Your task to perform on an android device: turn off priority inbox in the gmail app Image 0: 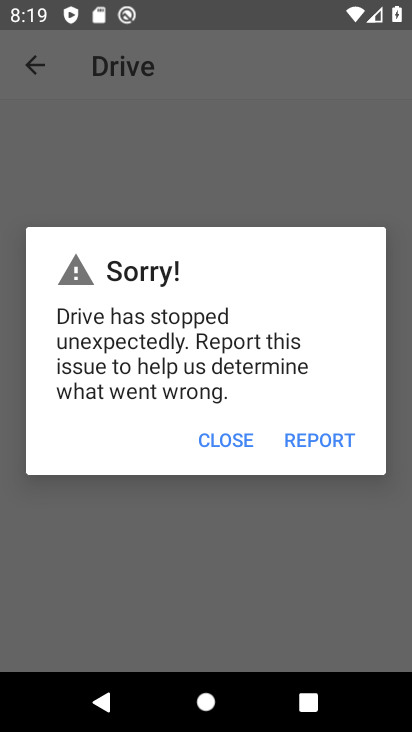
Step 0: press home button
Your task to perform on an android device: turn off priority inbox in the gmail app Image 1: 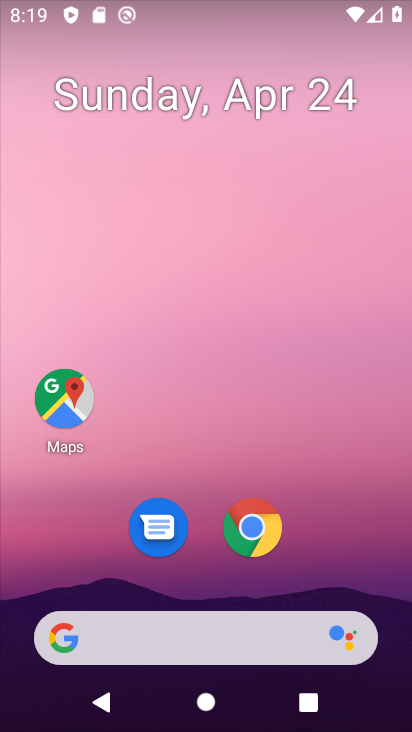
Step 1: drag from (312, 540) to (317, 148)
Your task to perform on an android device: turn off priority inbox in the gmail app Image 2: 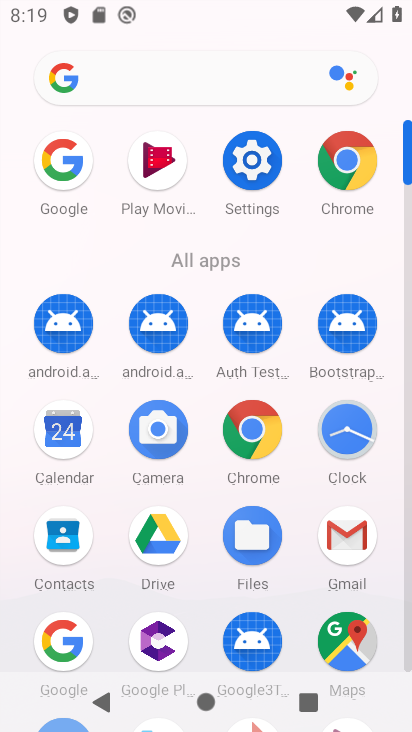
Step 2: click (345, 539)
Your task to perform on an android device: turn off priority inbox in the gmail app Image 3: 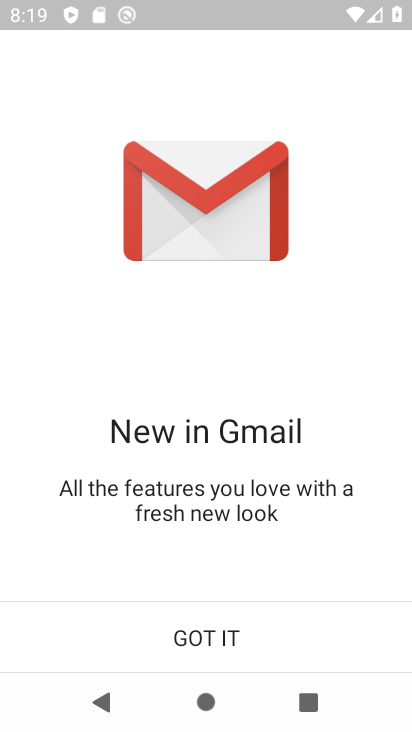
Step 3: click (239, 635)
Your task to perform on an android device: turn off priority inbox in the gmail app Image 4: 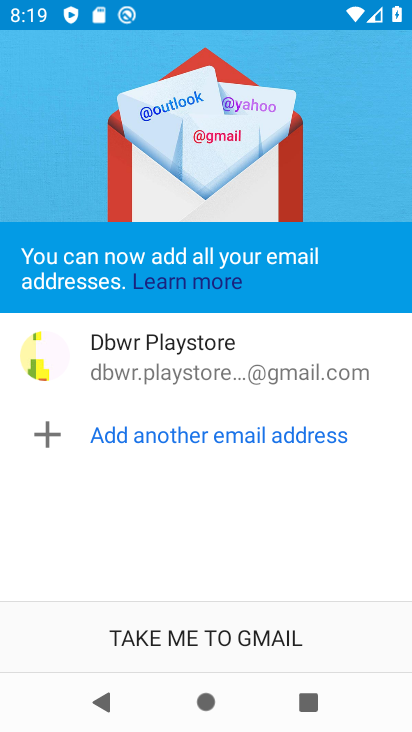
Step 4: click (239, 635)
Your task to perform on an android device: turn off priority inbox in the gmail app Image 5: 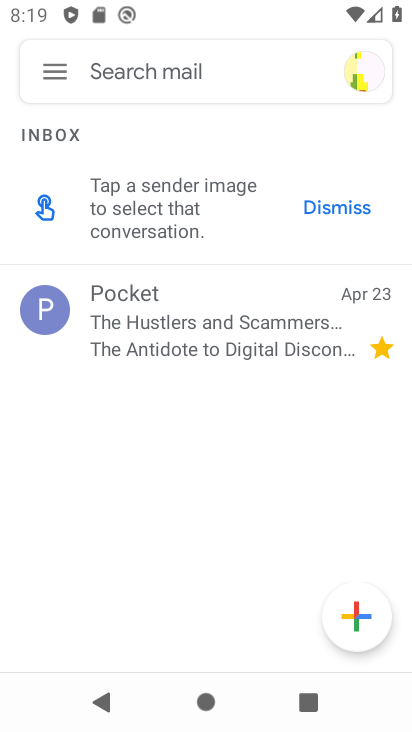
Step 5: click (62, 71)
Your task to perform on an android device: turn off priority inbox in the gmail app Image 6: 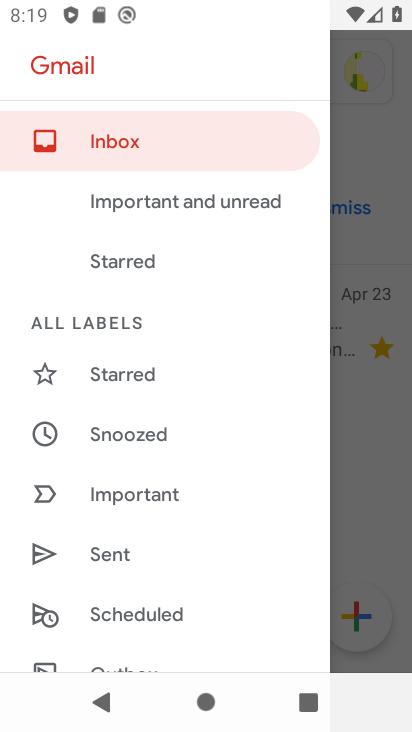
Step 6: drag from (184, 563) to (201, 180)
Your task to perform on an android device: turn off priority inbox in the gmail app Image 7: 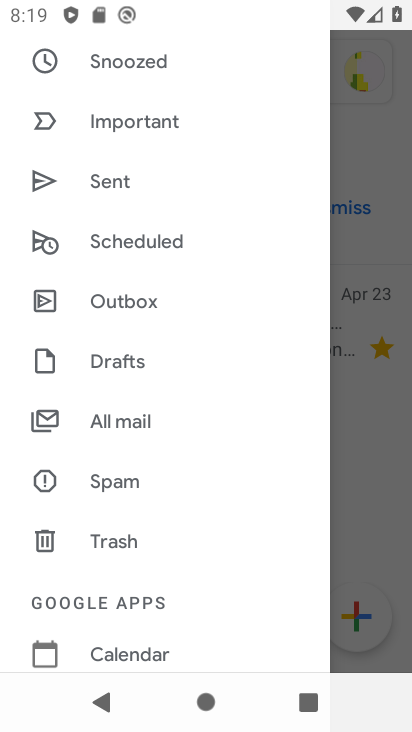
Step 7: drag from (176, 518) to (172, 301)
Your task to perform on an android device: turn off priority inbox in the gmail app Image 8: 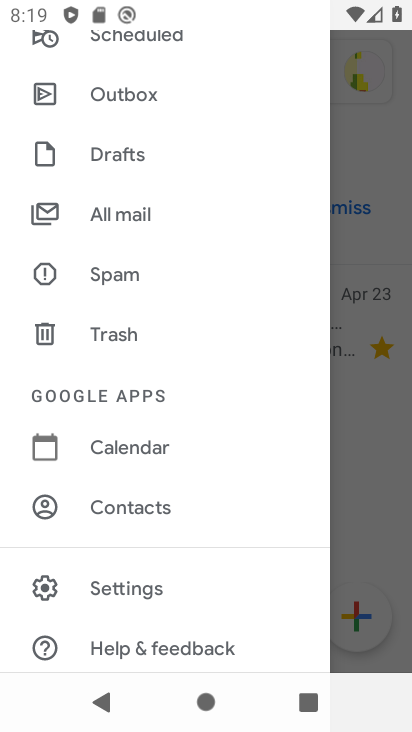
Step 8: click (152, 591)
Your task to perform on an android device: turn off priority inbox in the gmail app Image 9: 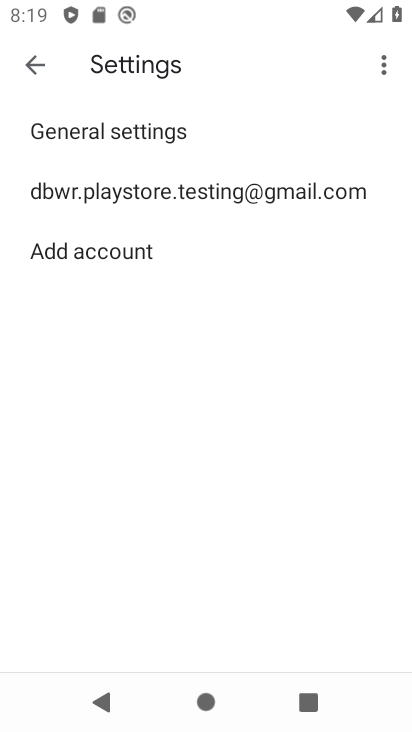
Step 9: click (232, 184)
Your task to perform on an android device: turn off priority inbox in the gmail app Image 10: 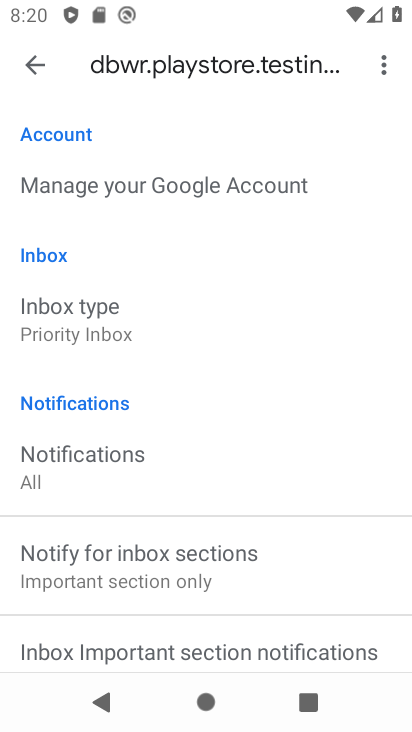
Step 10: click (75, 324)
Your task to perform on an android device: turn off priority inbox in the gmail app Image 11: 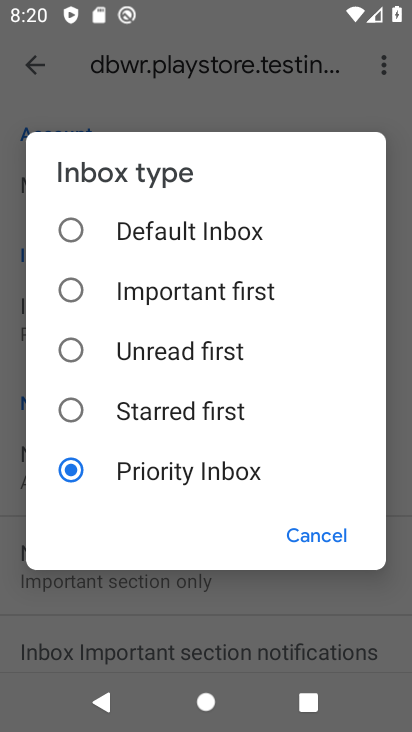
Step 11: click (74, 229)
Your task to perform on an android device: turn off priority inbox in the gmail app Image 12: 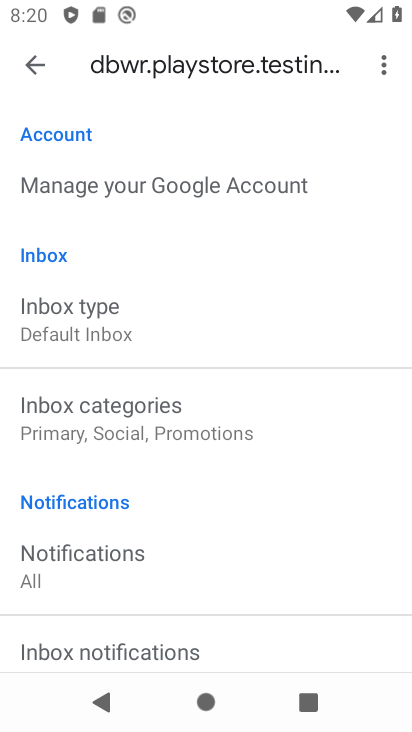
Step 12: task complete